Your task to perform on an android device: delete the emails in spam in the gmail app Image 0: 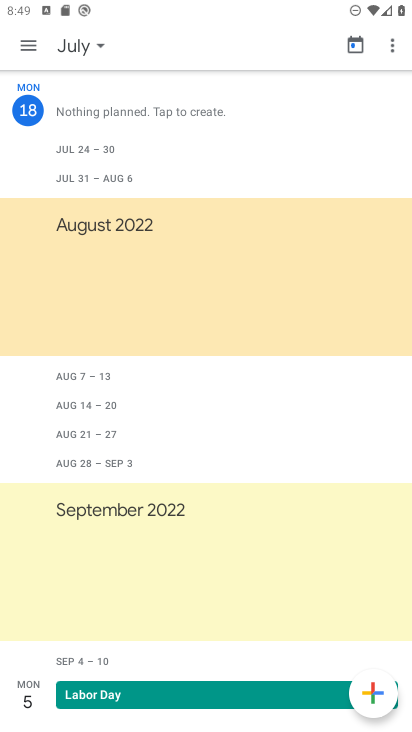
Step 0: press home button
Your task to perform on an android device: delete the emails in spam in the gmail app Image 1: 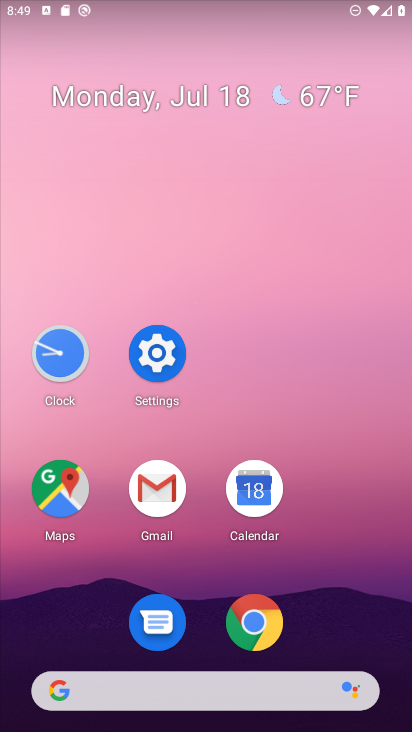
Step 1: drag from (391, 696) to (366, 96)
Your task to perform on an android device: delete the emails in spam in the gmail app Image 2: 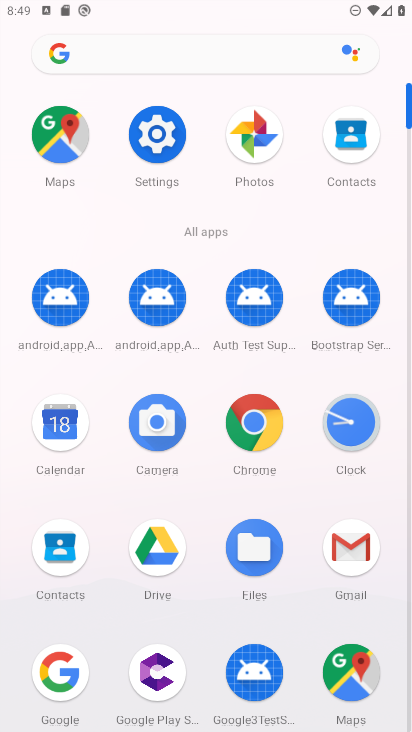
Step 2: click (347, 543)
Your task to perform on an android device: delete the emails in spam in the gmail app Image 3: 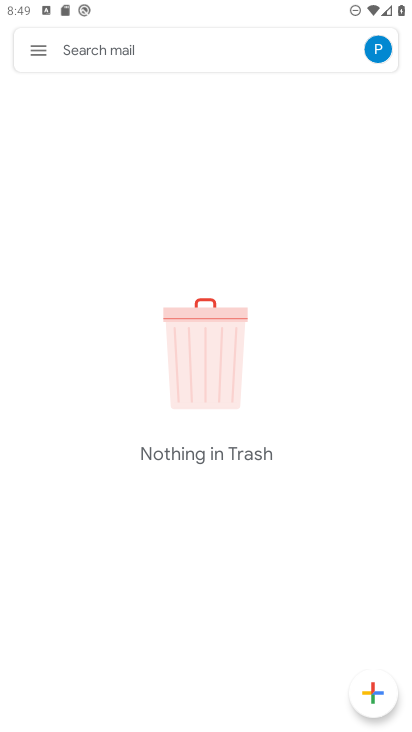
Step 3: task complete